Your task to perform on an android device: Open the stopwatch Image 0: 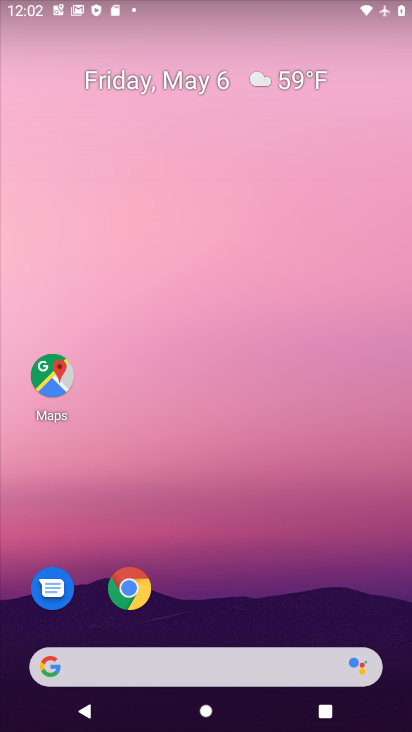
Step 0: drag from (241, 668) to (319, 138)
Your task to perform on an android device: Open the stopwatch Image 1: 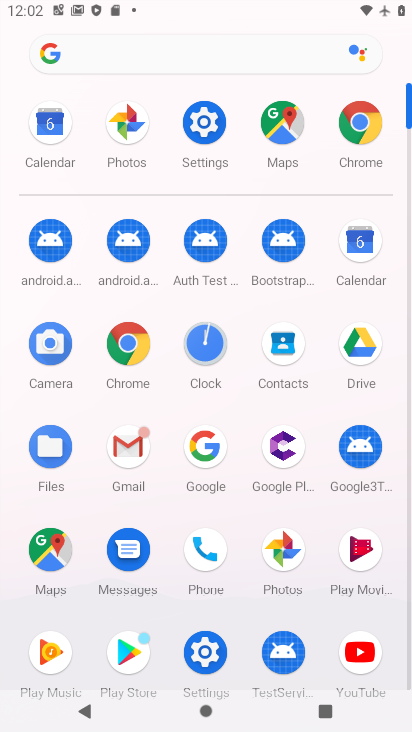
Step 1: click (203, 358)
Your task to perform on an android device: Open the stopwatch Image 2: 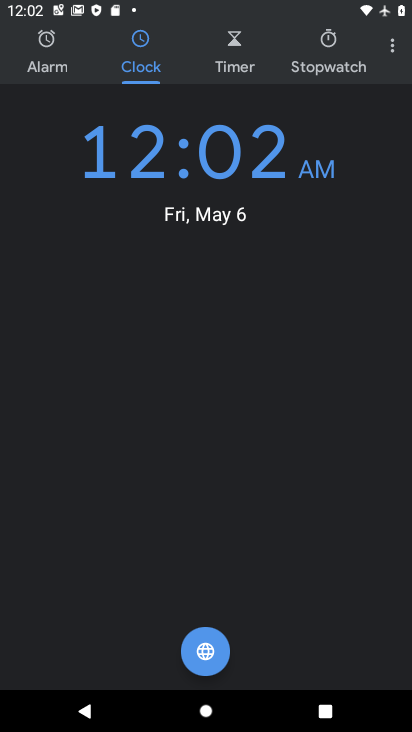
Step 2: click (325, 70)
Your task to perform on an android device: Open the stopwatch Image 3: 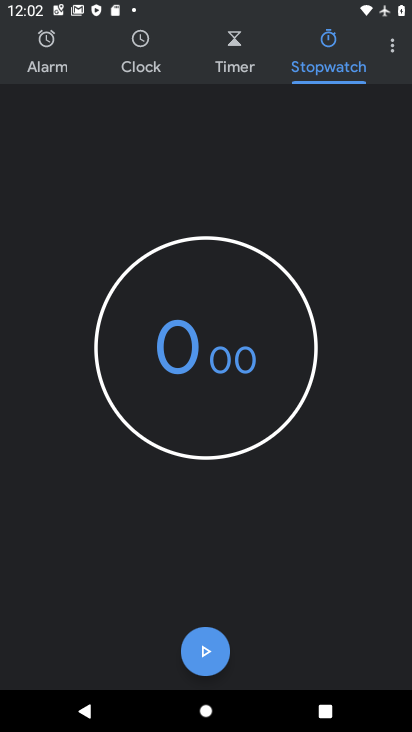
Step 3: task complete